Your task to perform on an android device: Go to CNN.com Image 0: 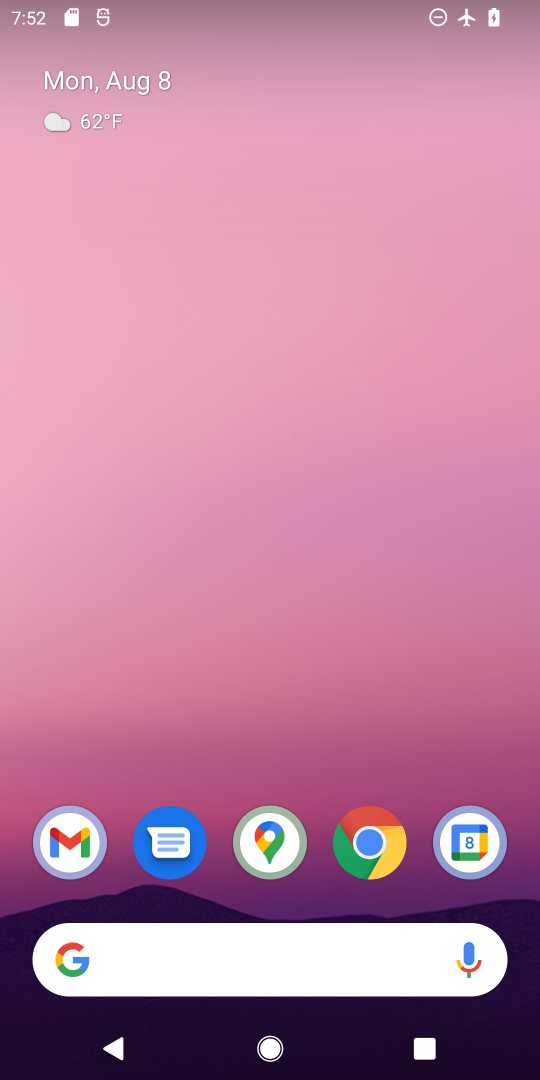
Step 0: click (380, 840)
Your task to perform on an android device: Go to CNN.com Image 1: 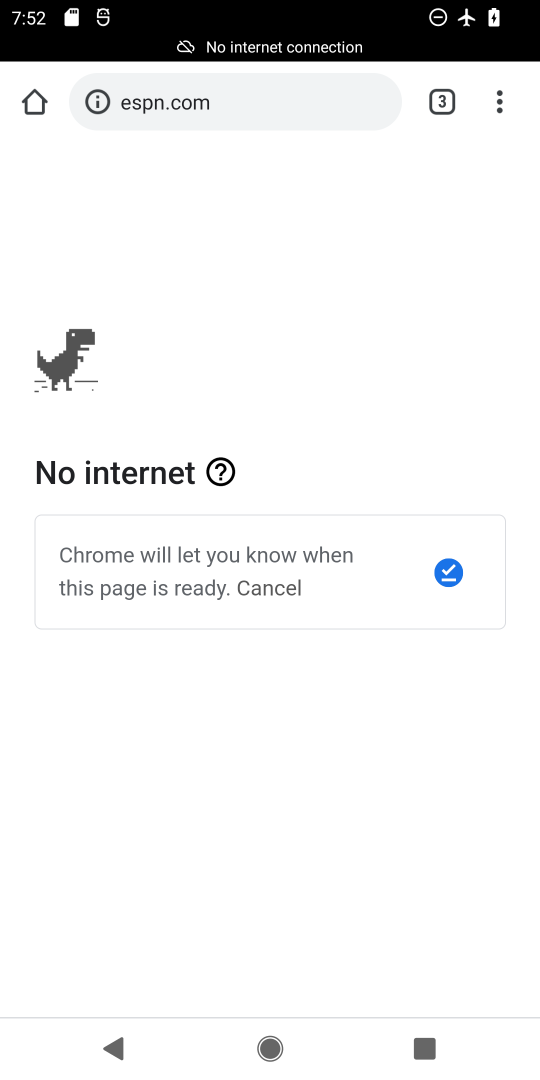
Step 1: click (436, 96)
Your task to perform on an android device: Go to CNN.com Image 2: 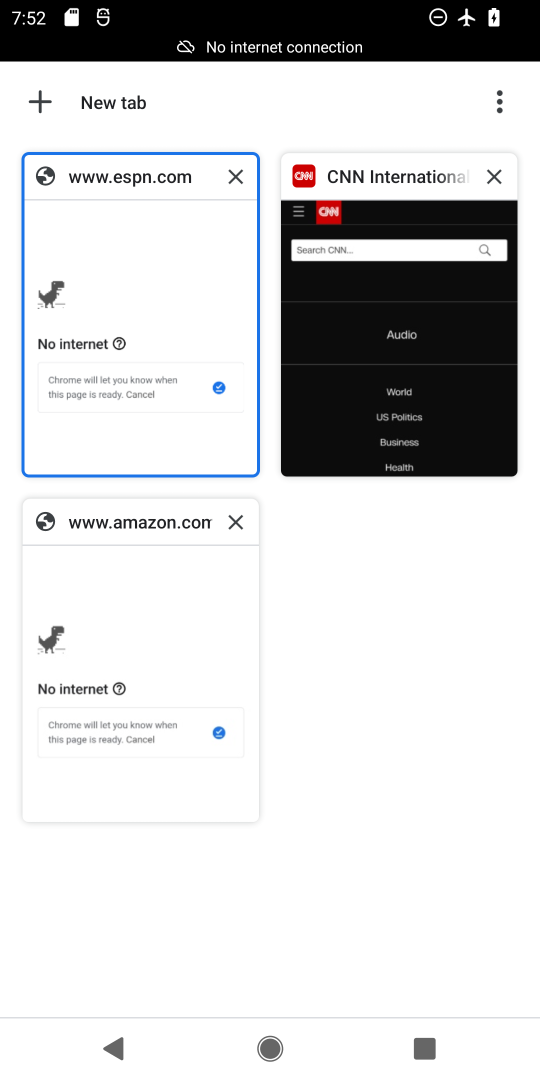
Step 2: click (452, 236)
Your task to perform on an android device: Go to CNN.com Image 3: 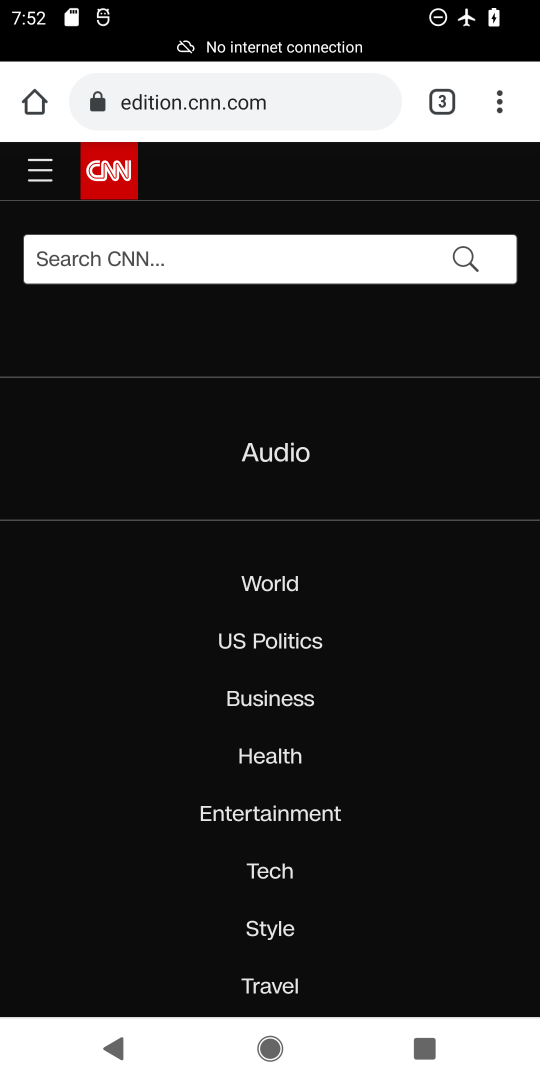
Step 3: task complete